Your task to perform on an android device: check google app version Image 0: 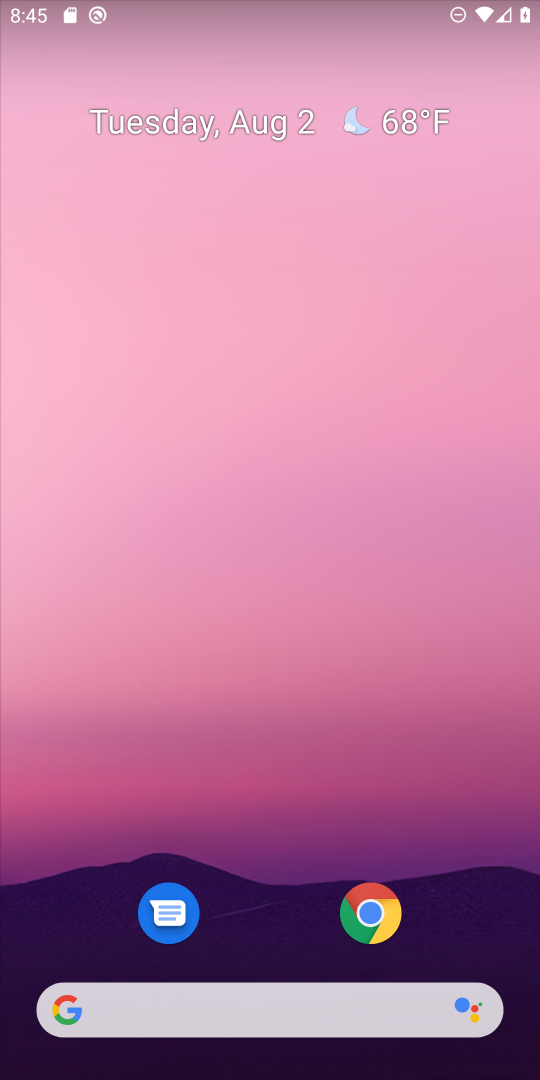
Step 0: click (296, 1032)
Your task to perform on an android device: check google app version Image 1: 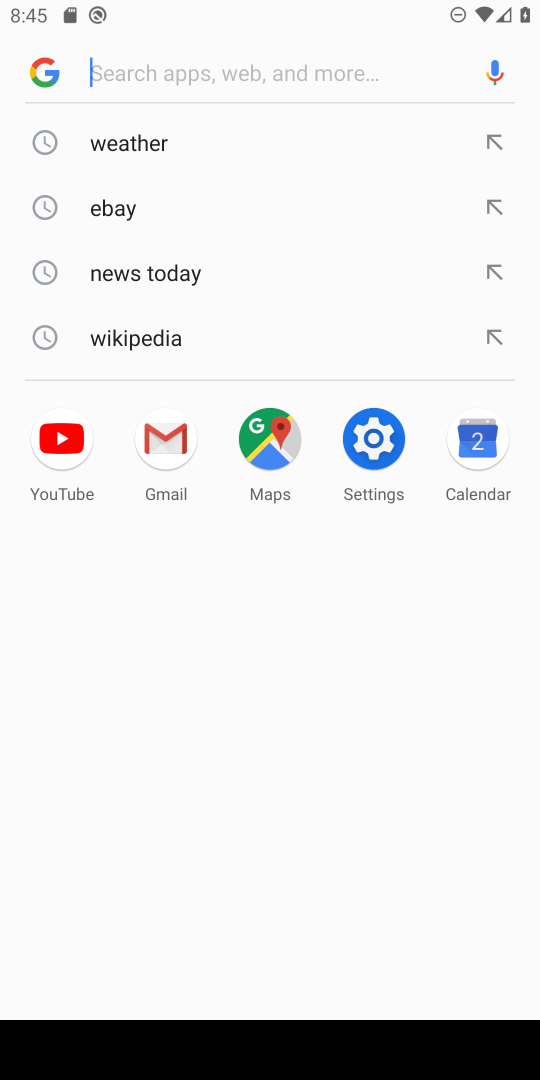
Step 1: click (55, 77)
Your task to perform on an android device: check google app version Image 2: 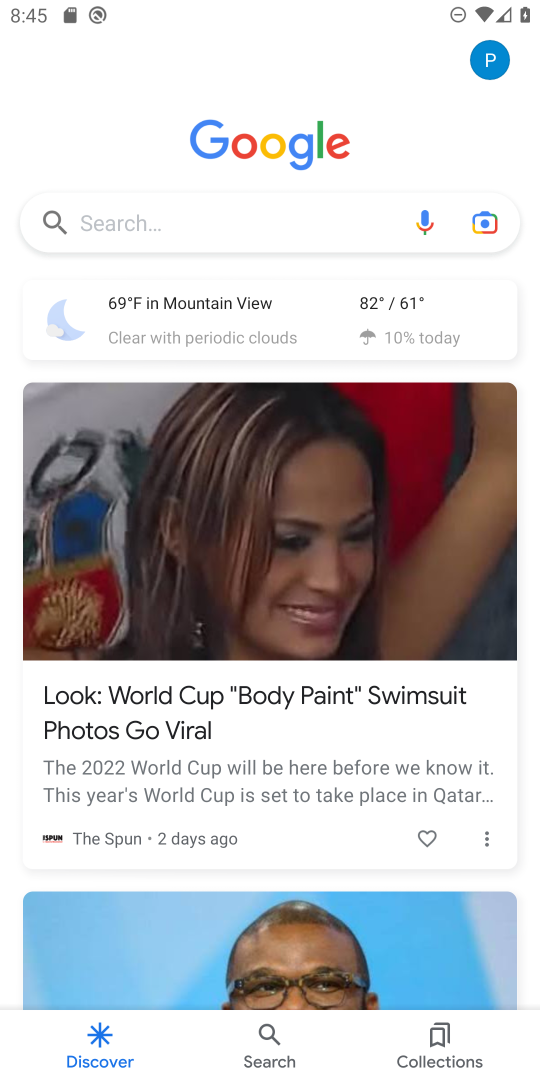
Step 2: click (485, 60)
Your task to perform on an android device: check google app version Image 3: 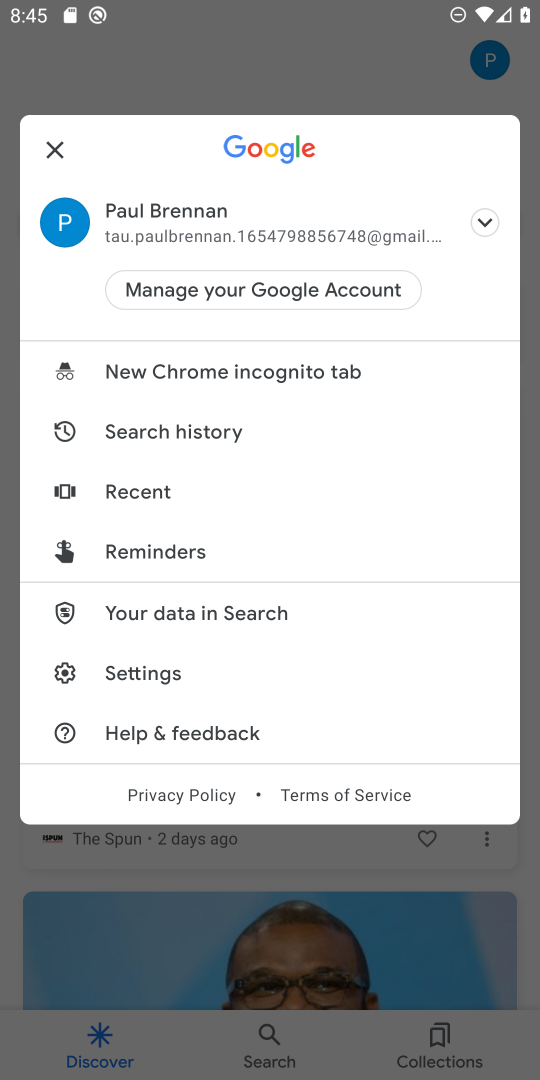
Step 3: click (139, 665)
Your task to perform on an android device: check google app version Image 4: 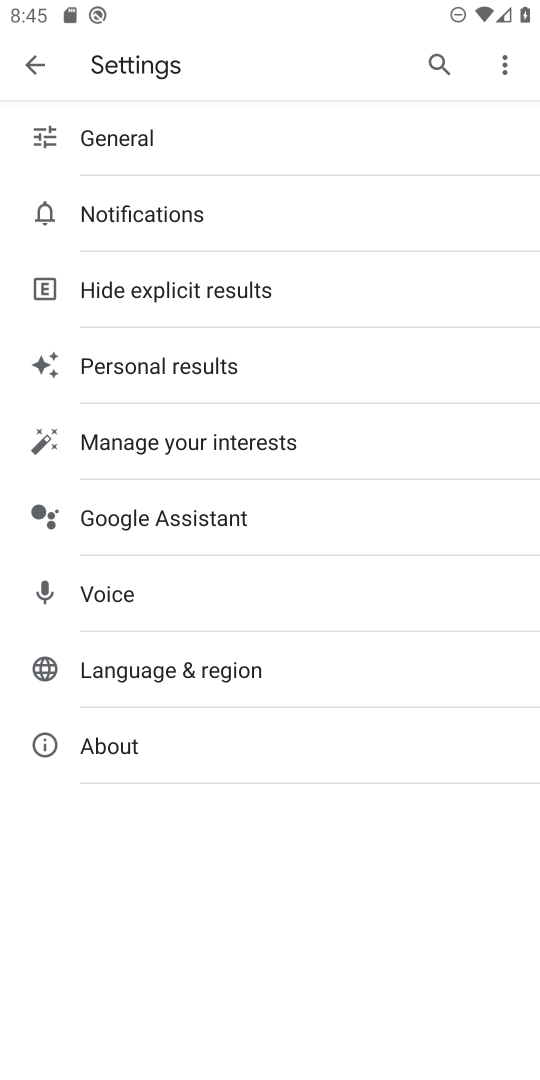
Step 4: click (127, 743)
Your task to perform on an android device: check google app version Image 5: 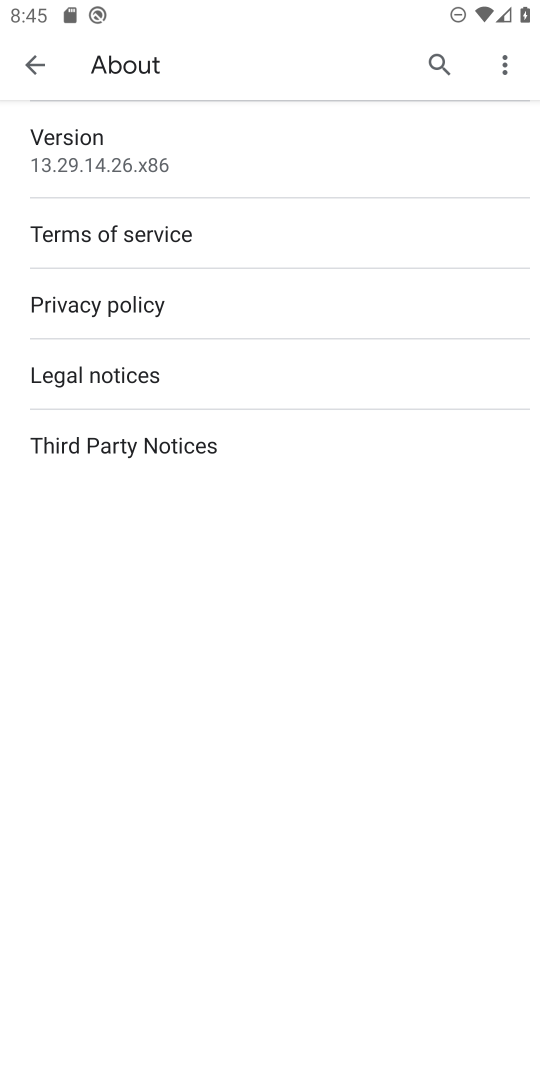
Step 5: task complete